Your task to perform on an android device: Toggle the flashlight Image 0: 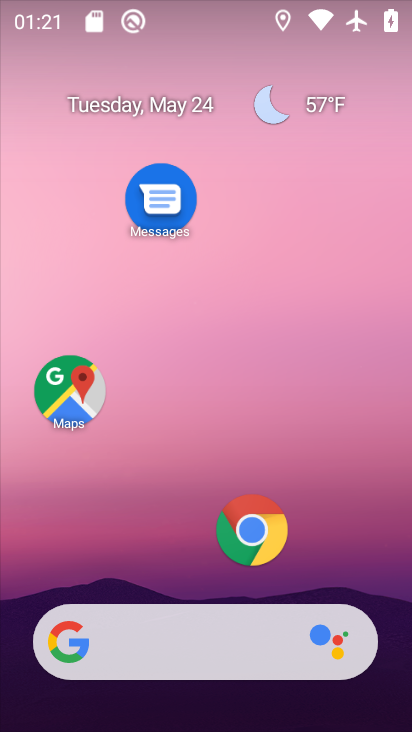
Step 0: drag from (179, 586) to (81, 27)
Your task to perform on an android device: Toggle the flashlight Image 1: 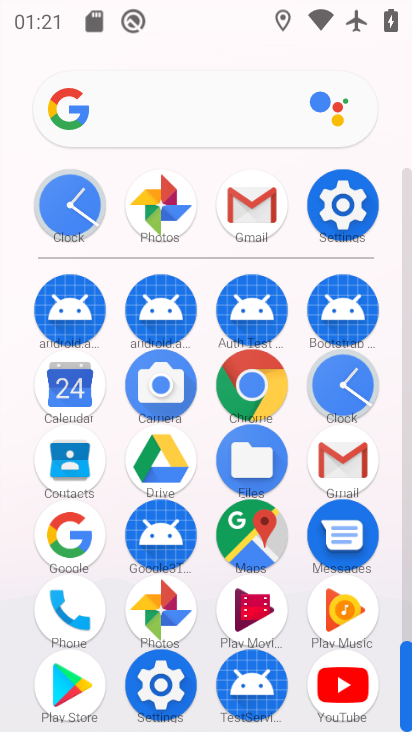
Step 1: click (350, 188)
Your task to perform on an android device: Toggle the flashlight Image 2: 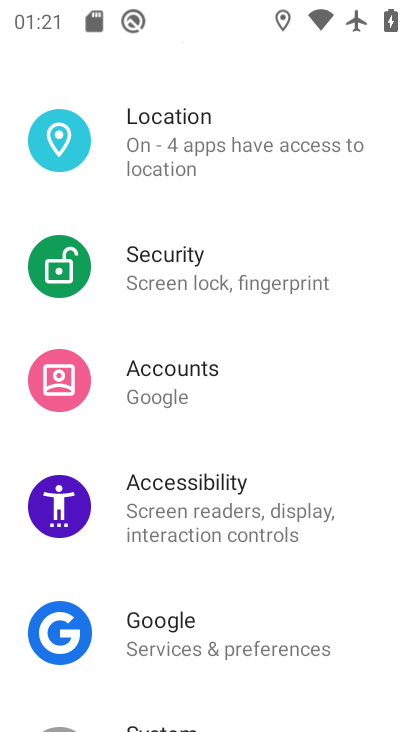
Step 2: task complete